Your task to perform on an android device: Go to wifi settings Image 0: 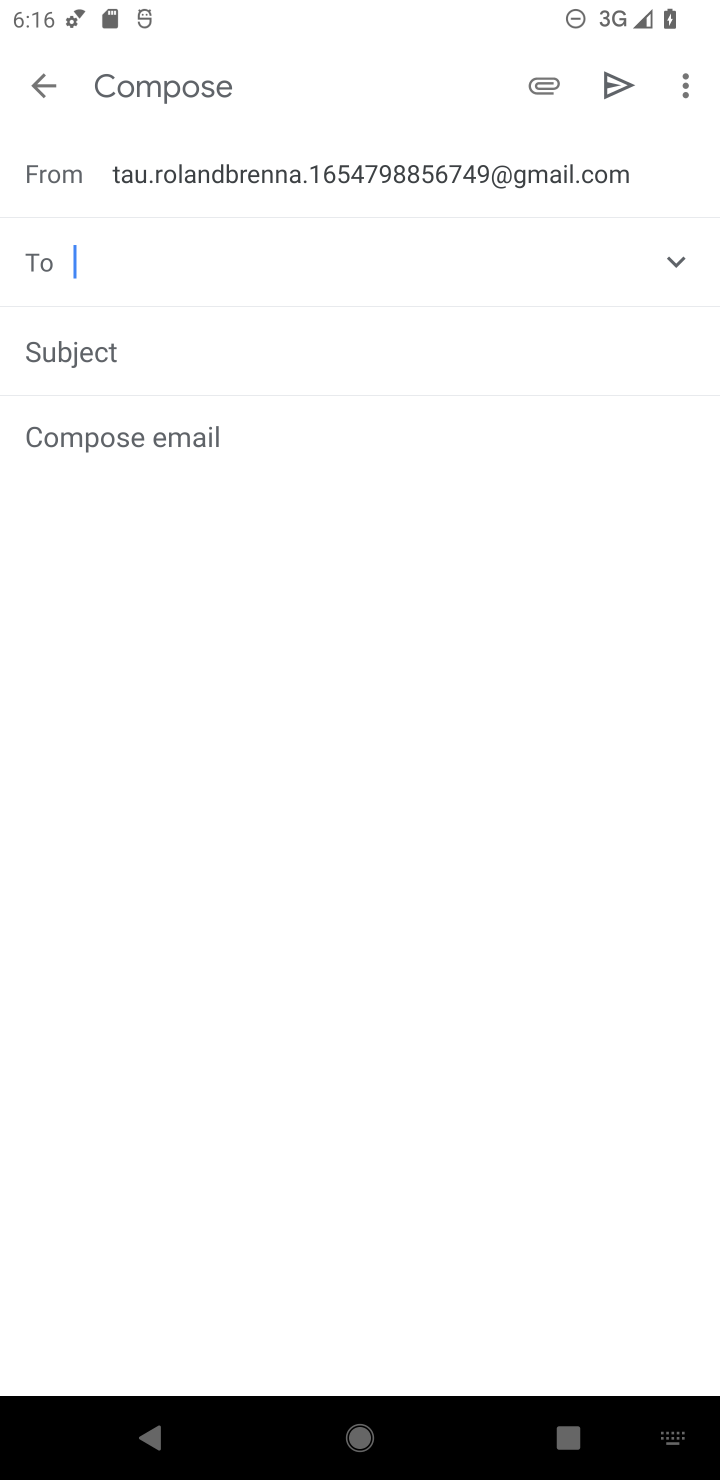
Step 0: press home button
Your task to perform on an android device: Go to wifi settings Image 1: 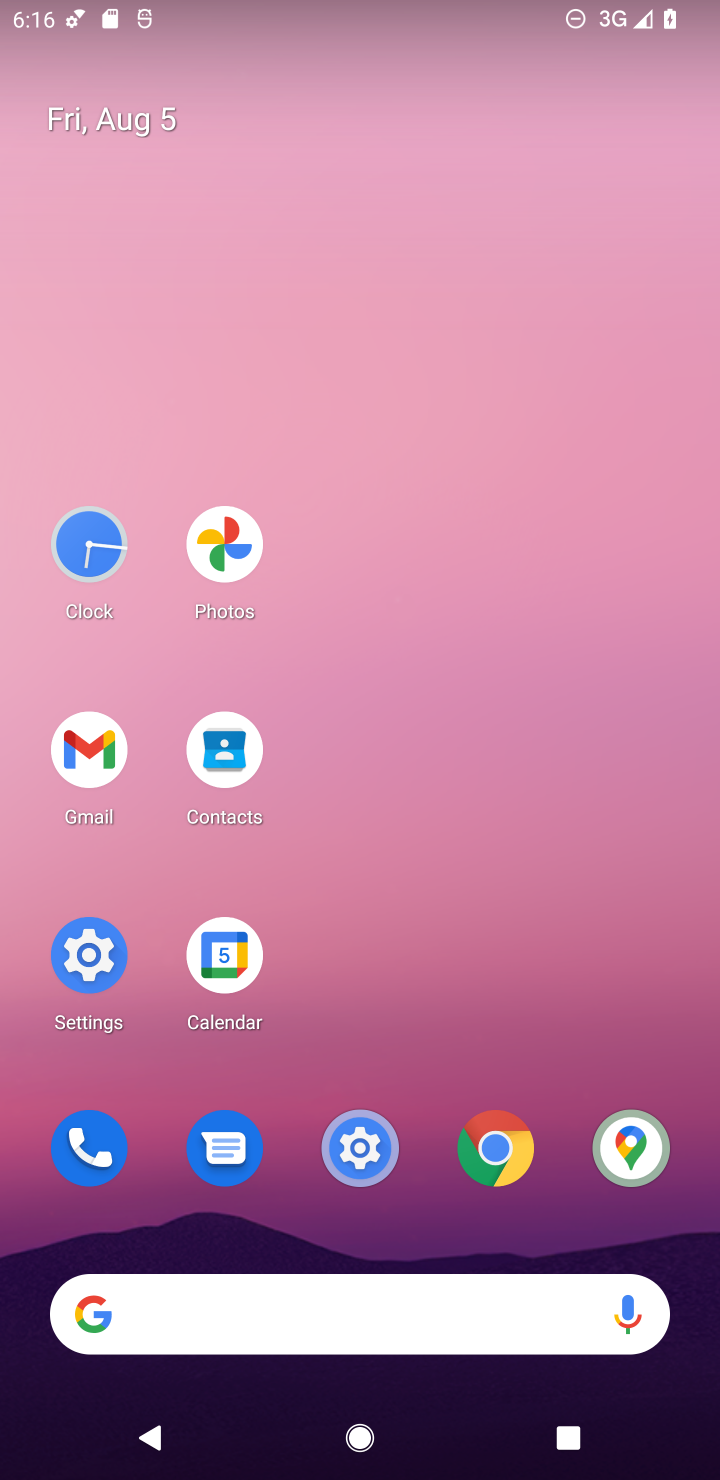
Step 1: click (95, 959)
Your task to perform on an android device: Go to wifi settings Image 2: 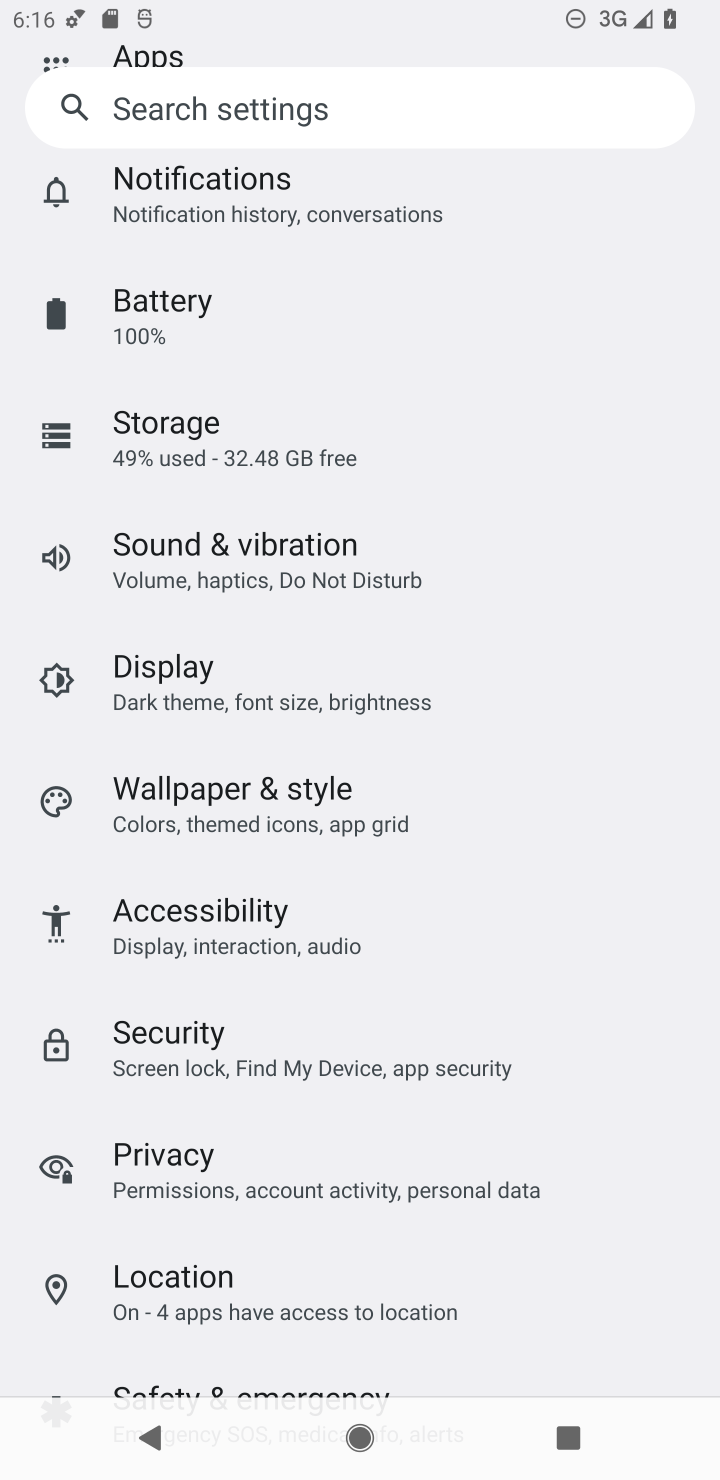
Step 2: drag from (356, 336) to (425, 1002)
Your task to perform on an android device: Go to wifi settings Image 3: 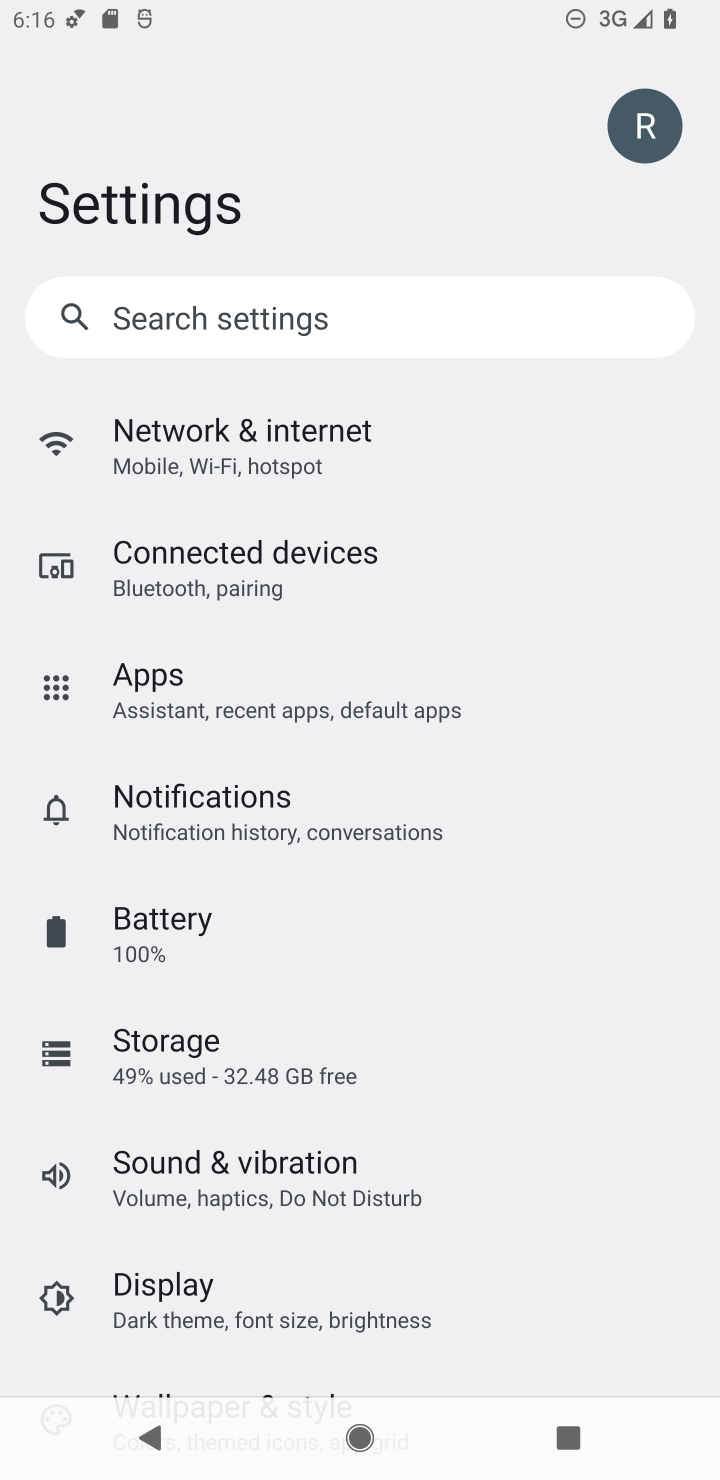
Step 3: click (246, 434)
Your task to perform on an android device: Go to wifi settings Image 4: 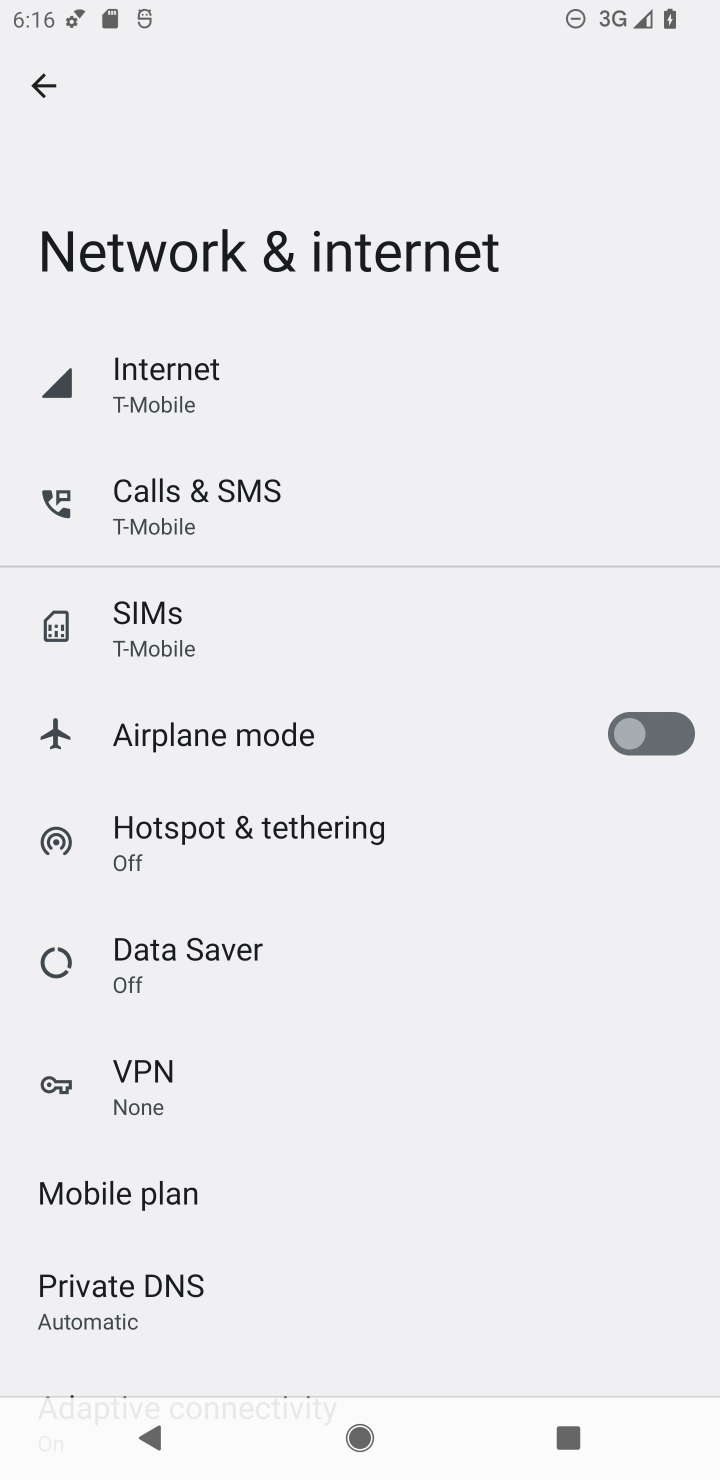
Step 4: click (181, 363)
Your task to perform on an android device: Go to wifi settings Image 5: 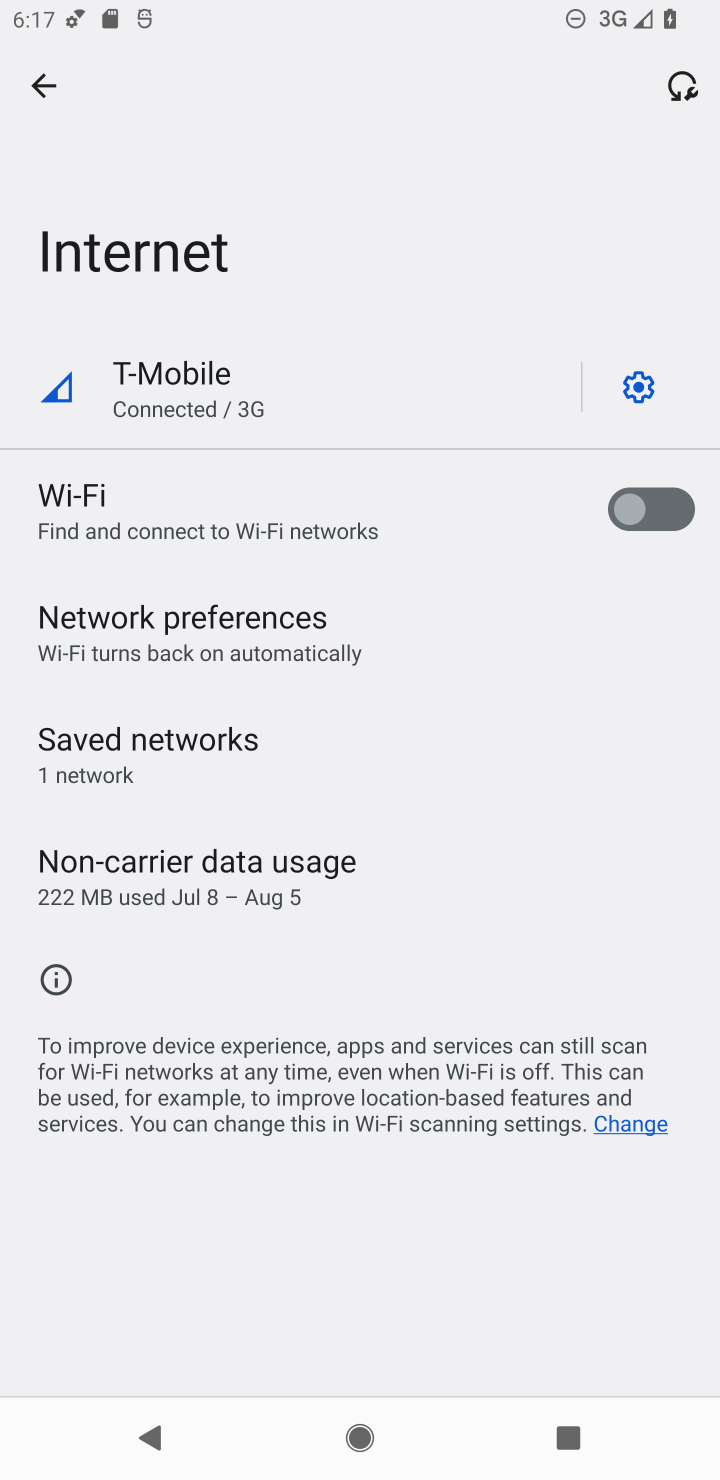
Step 5: task complete